Your task to perform on an android device: See recent photos Image 0: 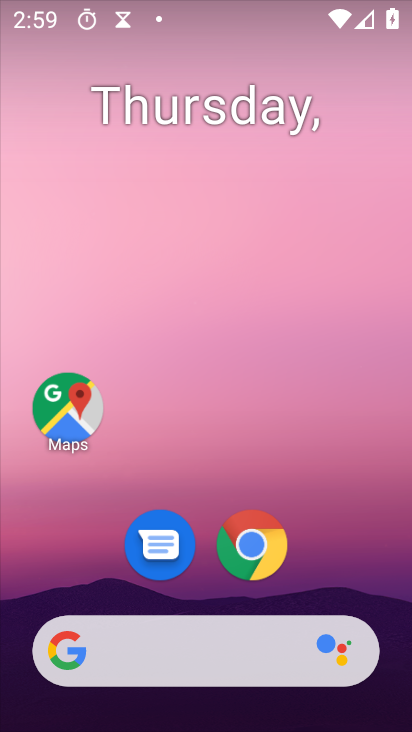
Step 0: drag from (198, 699) to (190, 104)
Your task to perform on an android device: See recent photos Image 1: 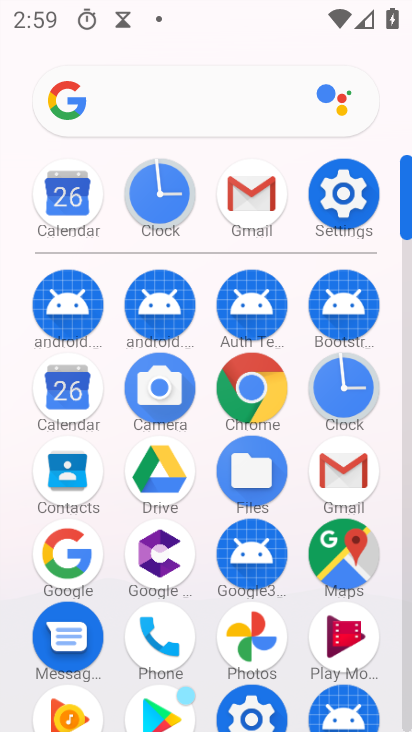
Step 1: click (246, 633)
Your task to perform on an android device: See recent photos Image 2: 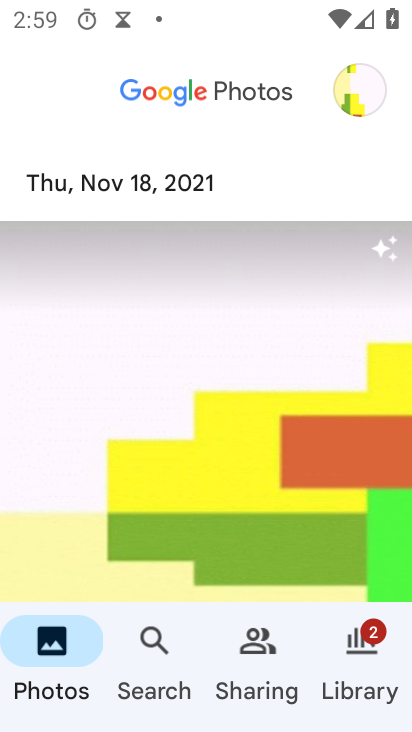
Step 2: drag from (199, 586) to (196, 193)
Your task to perform on an android device: See recent photos Image 3: 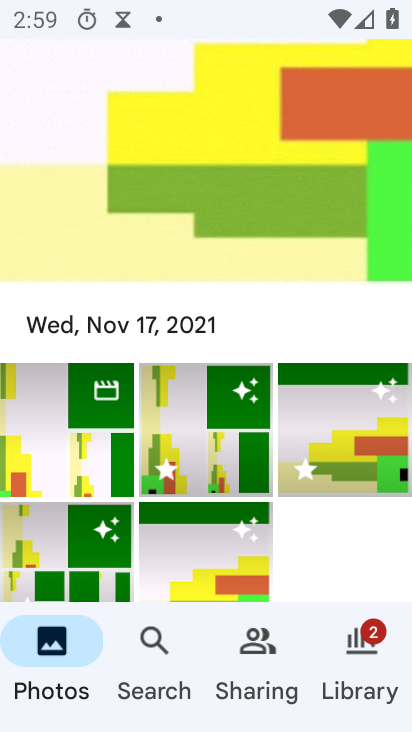
Step 3: click (90, 447)
Your task to perform on an android device: See recent photos Image 4: 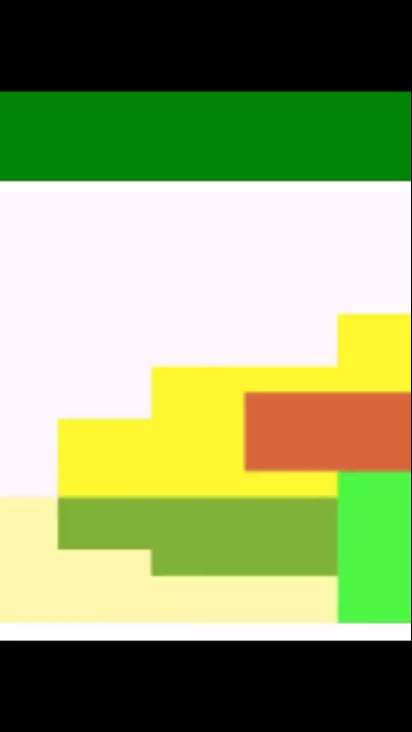
Step 4: task complete